Your task to perform on an android device: open sync settings in chrome Image 0: 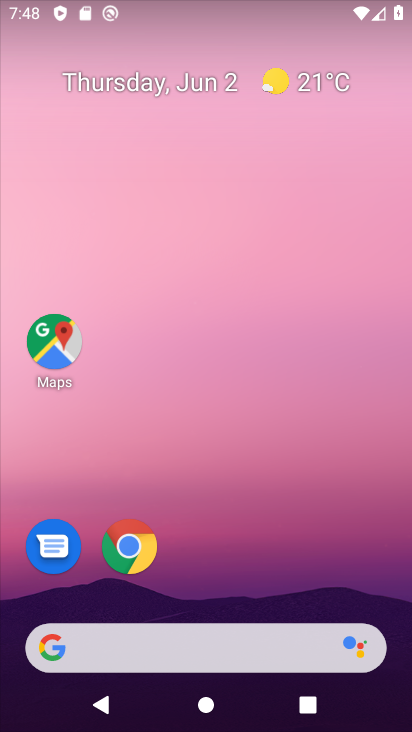
Step 0: click (135, 549)
Your task to perform on an android device: open sync settings in chrome Image 1: 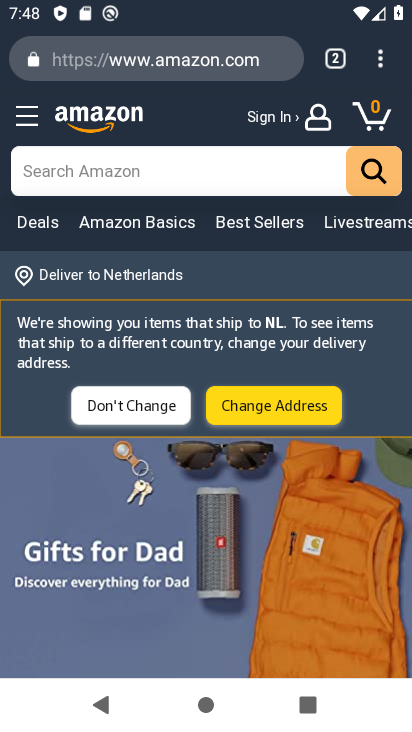
Step 1: click (383, 62)
Your task to perform on an android device: open sync settings in chrome Image 2: 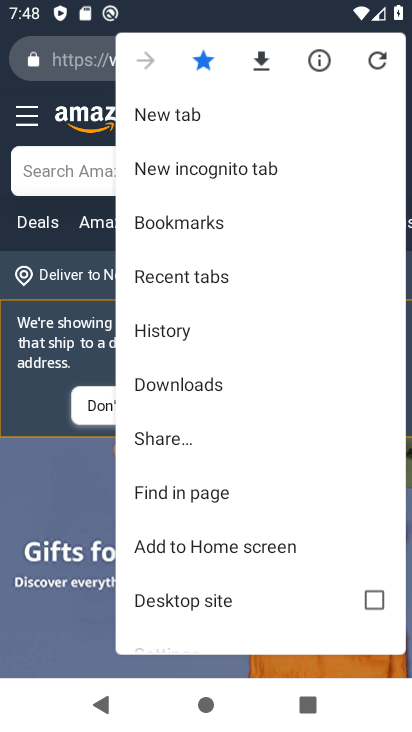
Step 2: drag from (248, 481) to (248, 245)
Your task to perform on an android device: open sync settings in chrome Image 3: 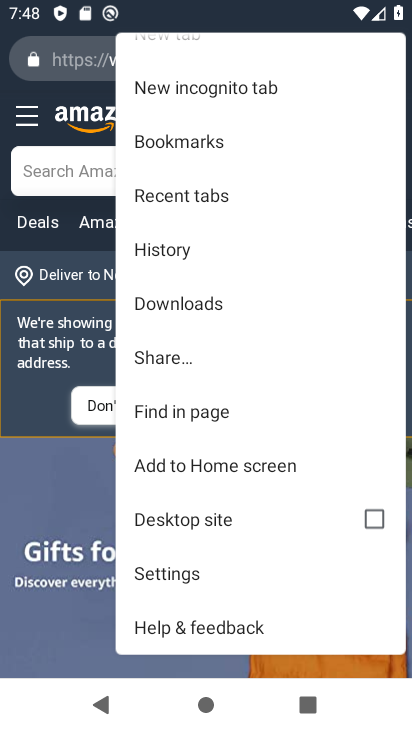
Step 3: click (187, 564)
Your task to perform on an android device: open sync settings in chrome Image 4: 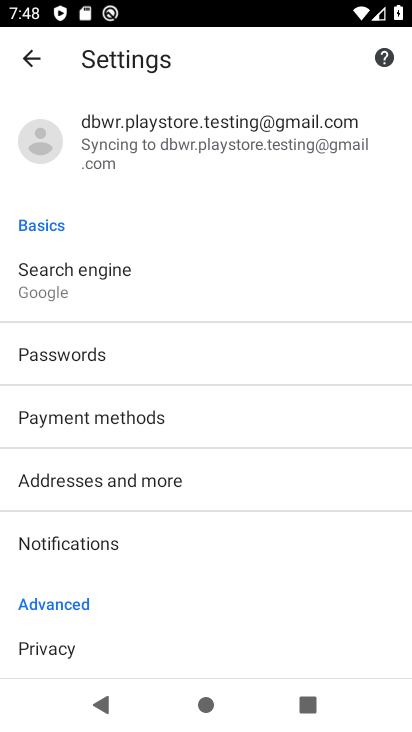
Step 4: click (282, 141)
Your task to perform on an android device: open sync settings in chrome Image 5: 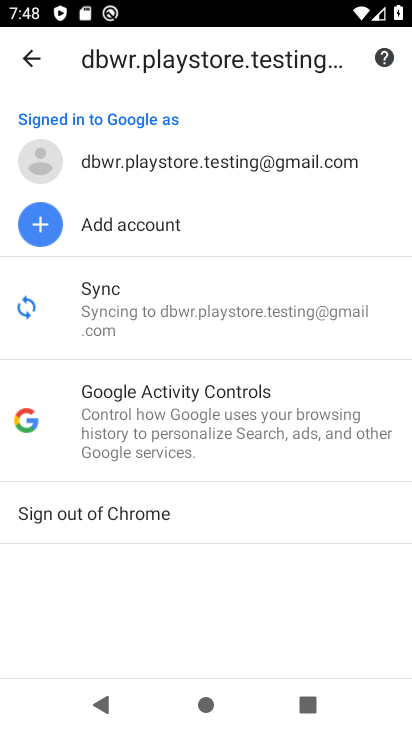
Step 5: click (218, 293)
Your task to perform on an android device: open sync settings in chrome Image 6: 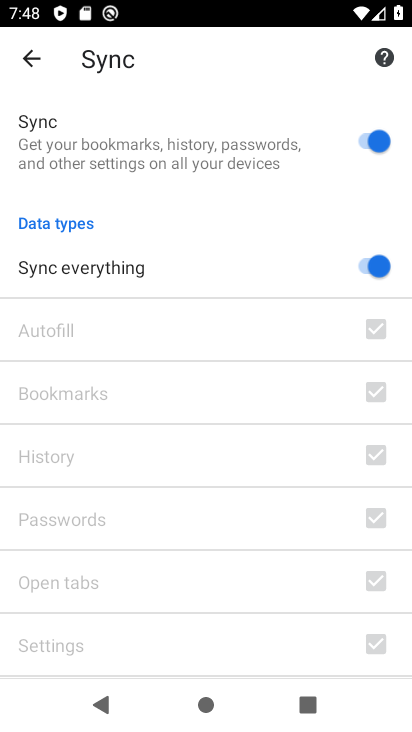
Step 6: task complete